Your task to perform on an android device: turn off sleep mode Image 0: 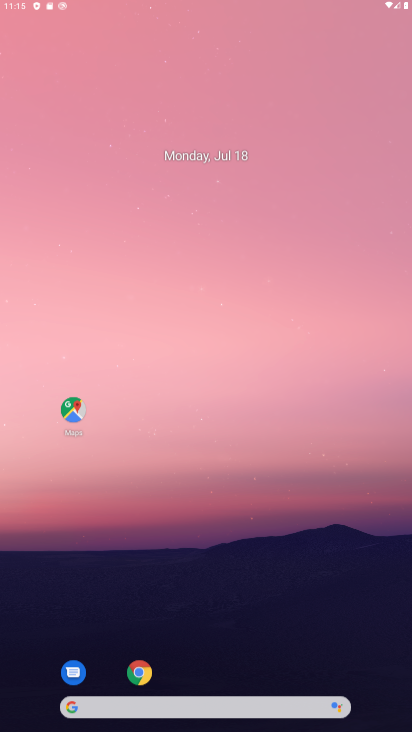
Step 0: press home button
Your task to perform on an android device: turn off sleep mode Image 1: 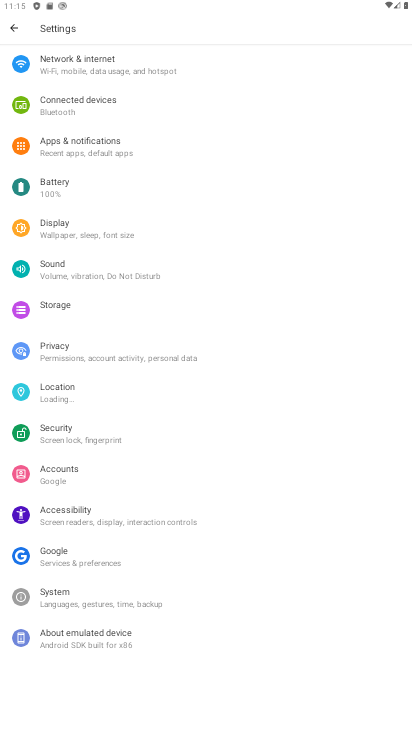
Step 1: drag from (216, 680) to (225, 11)
Your task to perform on an android device: turn off sleep mode Image 2: 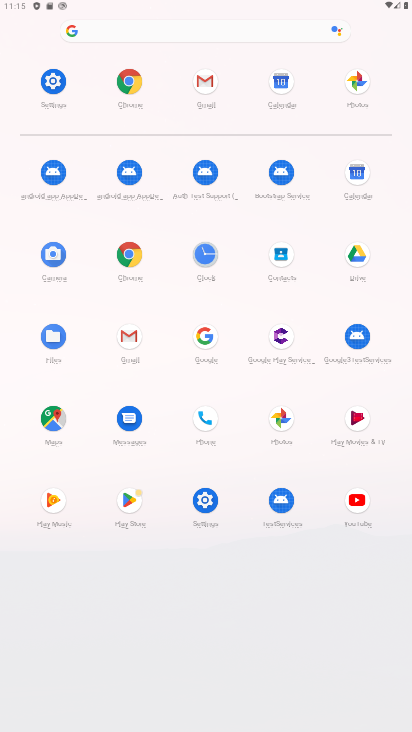
Step 2: click (54, 76)
Your task to perform on an android device: turn off sleep mode Image 3: 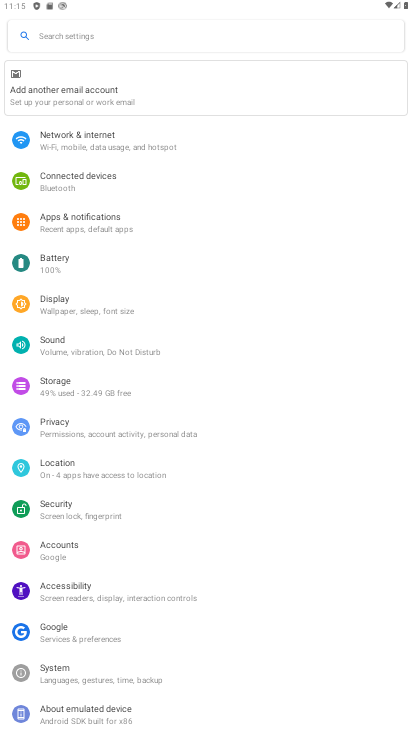
Step 3: click (76, 299)
Your task to perform on an android device: turn off sleep mode Image 4: 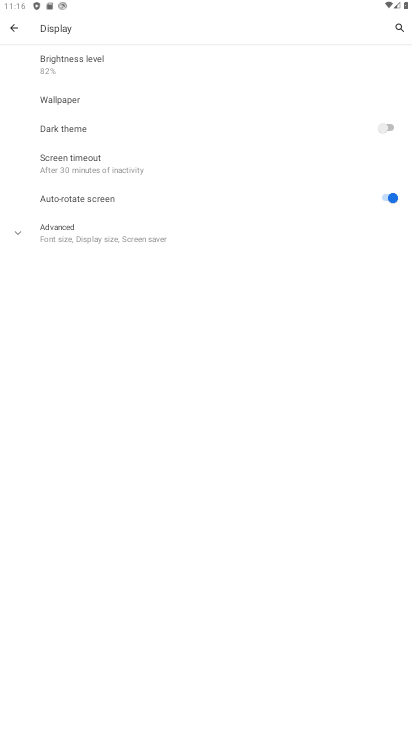
Step 4: click (19, 228)
Your task to perform on an android device: turn off sleep mode Image 5: 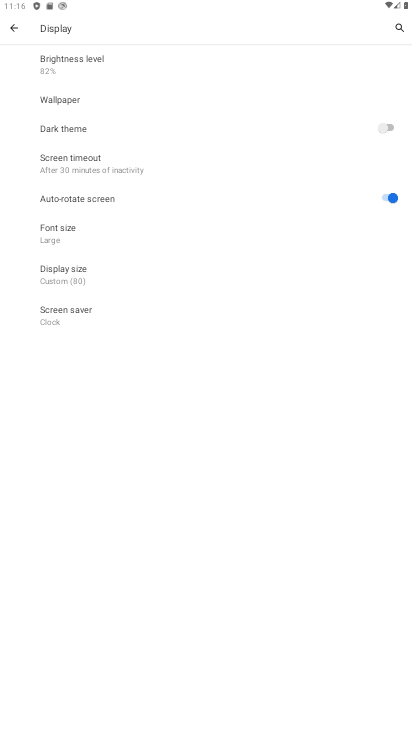
Step 5: task complete